Your task to perform on an android device: open app "AliExpress" (install if not already installed) and enter user name: "orangutan@inbox.com" and password: "Lyons" Image 0: 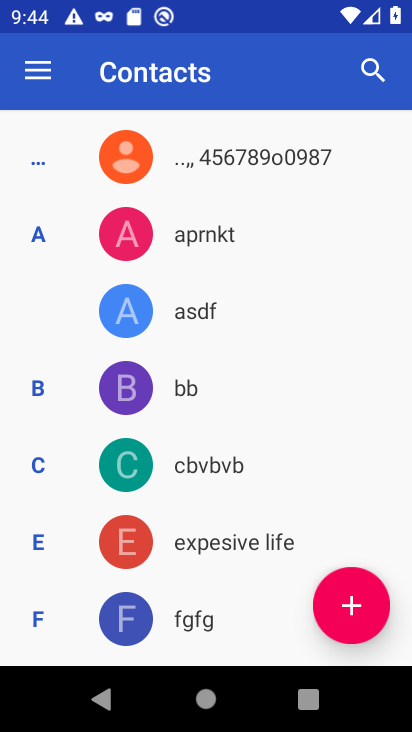
Step 0: press home button
Your task to perform on an android device: open app "AliExpress" (install if not already installed) and enter user name: "orangutan@inbox.com" and password: "Lyons" Image 1: 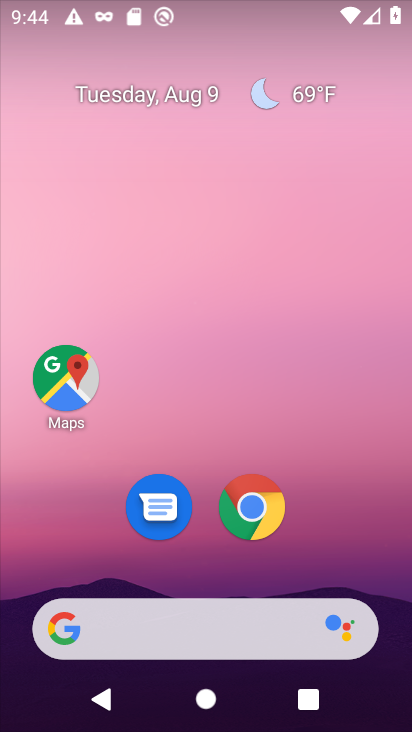
Step 1: drag from (149, 625) to (161, 163)
Your task to perform on an android device: open app "AliExpress" (install if not already installed) and enter user name: "orangutan@inbox.com" and password: "Lyons" Image 2: 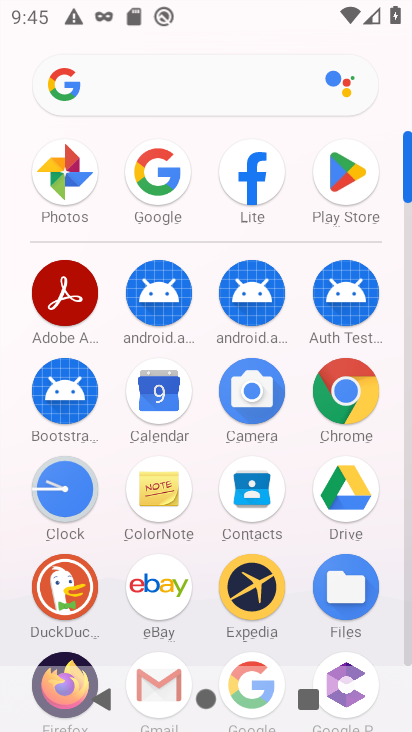
Step 2: click (351, 168)
Your task to perform on an android device: open app "AliExpress" (install if not already installed) and enter user name: "orangutan@inbox.com" and password: "Lyons" Image 3: 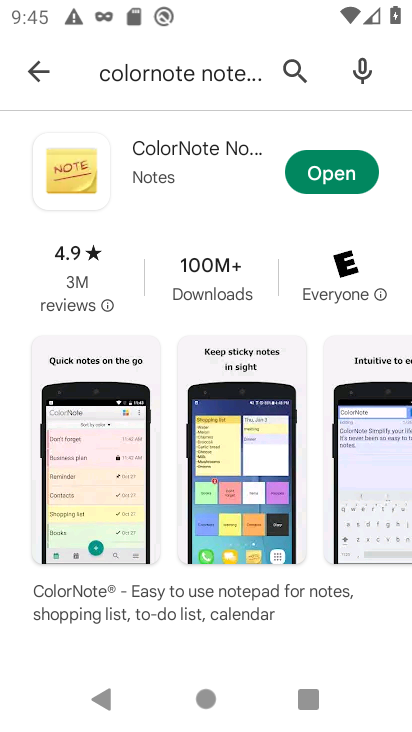
Step 3: click (290, 69)
Your task to perform on an android device: open app "AliExpress" (install if not already installed) and enter user name: "orangutan@inbox.com" and password: "Lyons" Image 4: 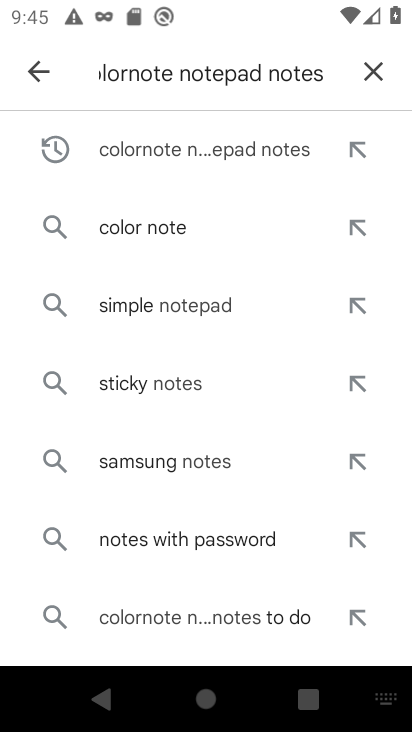
Step 4: click (377, 72)
Your task to perform on an android device: open app "AliExpress" (install if not already installed) and enter user name: "orangutan@inbox.com" and password: "Lyons" Image 5: 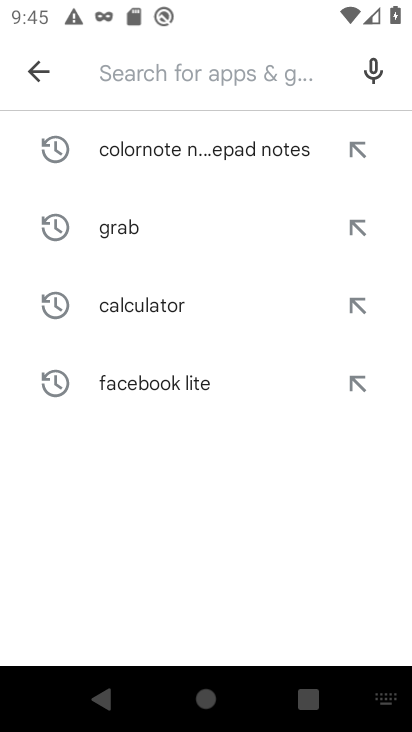
Step 5: type "AliExpress"
Your task to perform on an android device: open app "AliExpress" (install if not already installed) and enter user name: "orangutan@inbox.com" and password: "Lyons" Image 6: 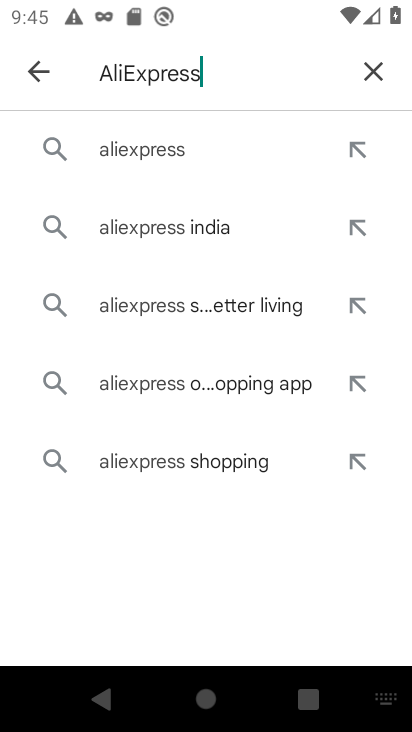
Step 6: click (158, 152)
Your task to perform on an android device: open app "AliExpress" (install if not already installed) and enter user name: "orangutan@inbox.com" and password: "Lyons" Image 7: 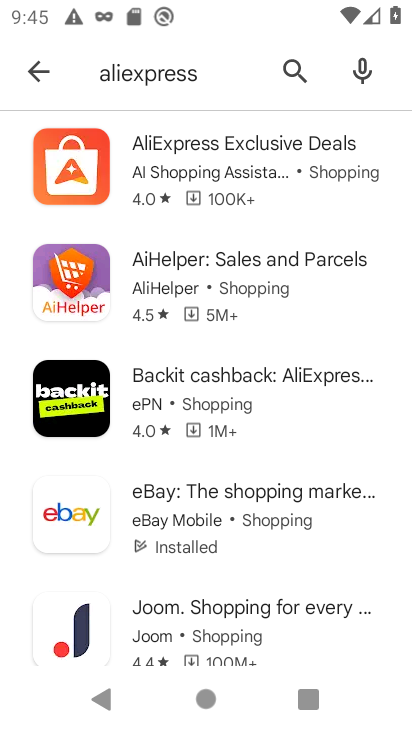
Step 7: click (187, 148)
Your task to perform on an android device: open app "AliExpress" (install if not already installed) and enter user name: "orangutan@inbox.com" and password: "Lyons" Image 8: 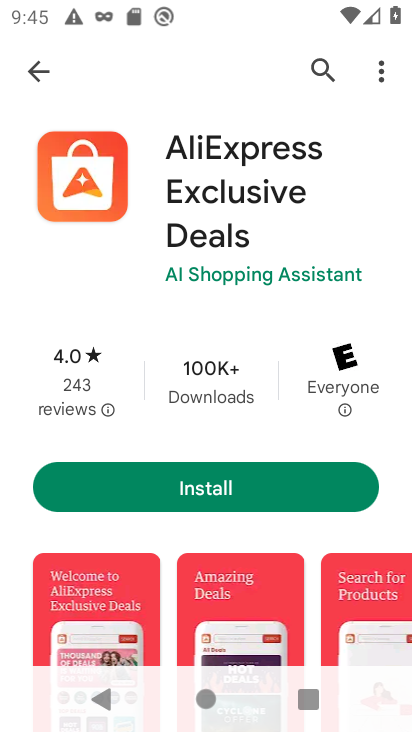
Step 8: click (200, 492)
Your task to perform on an android device: open app "AliExpress" (install if not already installed) and enter user name: "orangutan@inbox.com" and password: "Lyons" Image 9: 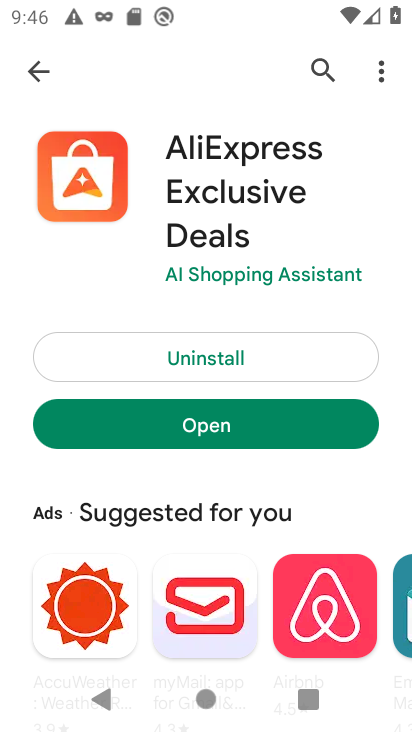
Step 9: click (232, 433)
Your task to perform on an android device: open app "AliExpress" (install if not already installed) and enter user name: "orangutan@inbox.com" and password: "Lyons" Image 10: 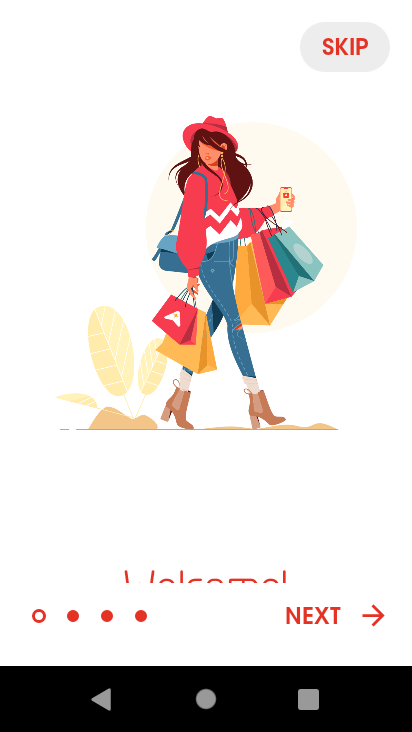
Step 10: click (305, 616)
Your task to perform on an android device: open app "AliExpress" (install if not already installed) and enter user name: "orangutan@inbox.com" and password: "Lyons" Image 11: 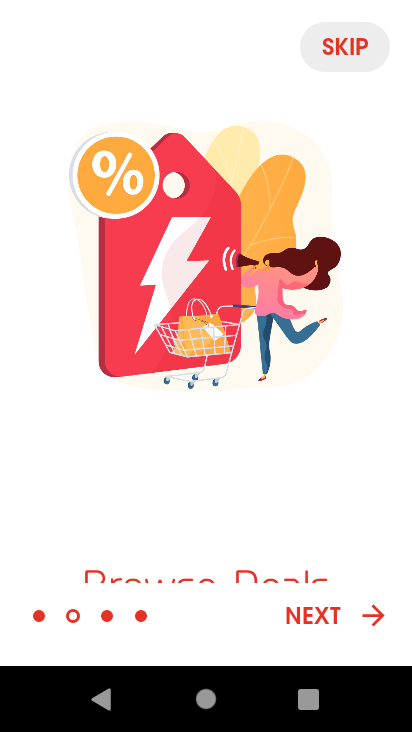
Step 11: click (305, 616)
Your task to perform on an android device: open app "AliExpress" (install if not already installed) and enter user name: "orangutan@inbox.com" and password: "Lyons" Image 12: 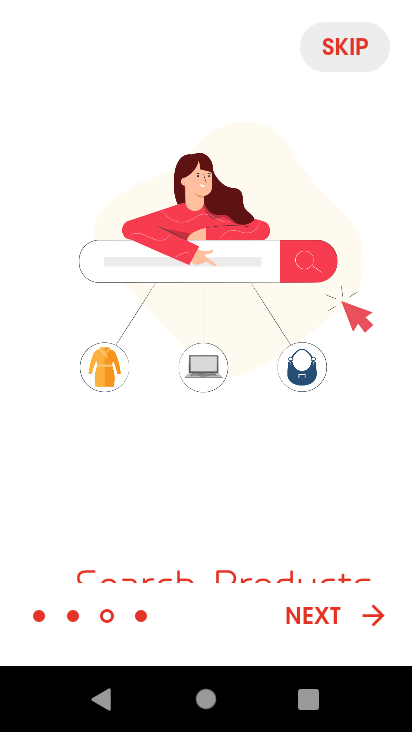
Step 12: click (305, 616)
Your task to perform on an android device: open app "AliExpress" (install if not already installed) and enter user name: "orangutan@inbox.com" and password: "Lyons" Image 13: 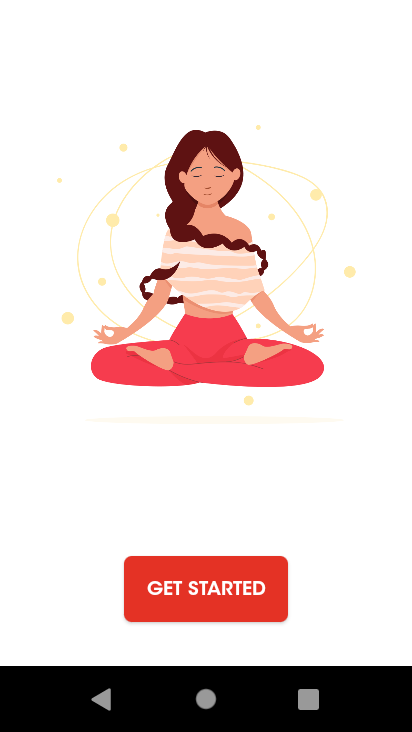
Step 13: click (260, 588)
Your task to perform on an android device: open app "AliExpress" (install if not already installed) and enter user name: "orangutan@inbox.com" and password: "Lyons" Image 14: 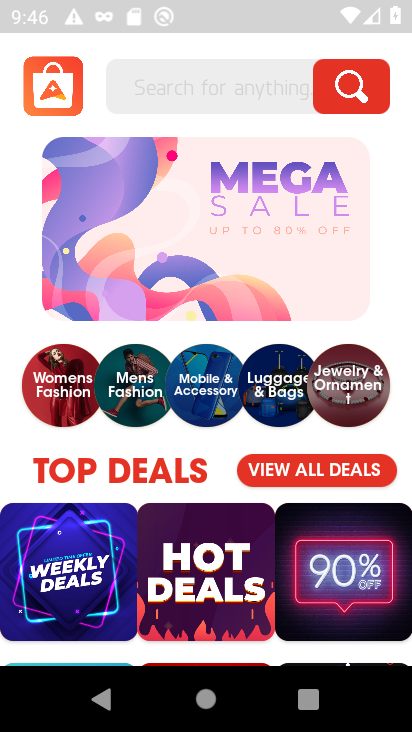
Step 14: click (63, 89)
Your task to perform on an android device: open app "AliExpress" (install if not already installed) and enter user name: "orangutan@inbox.com" and password: "Lyons" Image 15: 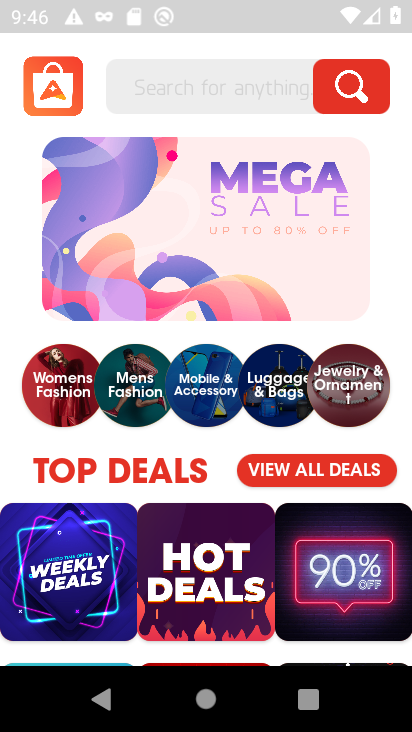
Step 15: click (63, 89)
Your task to perform on an android device: open app "AliExpress" (install if not already installed) and enter user name: "orangutan@inbox.com" and password: "Lyons" Image 16: 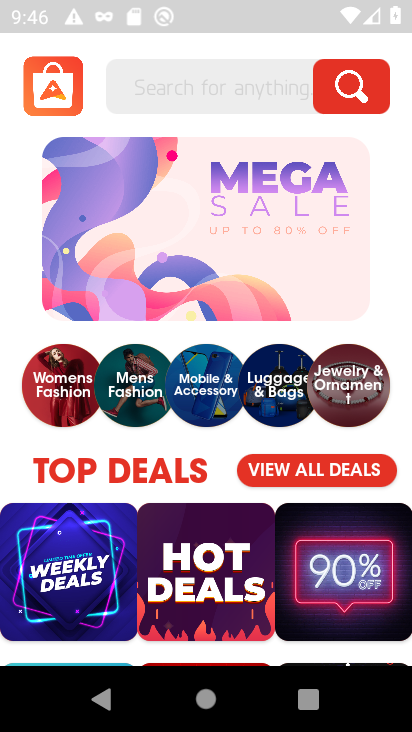
Step 16: task complete